Your task to perform on an android device: Open Youtube and go to "Your channel" Image 0: 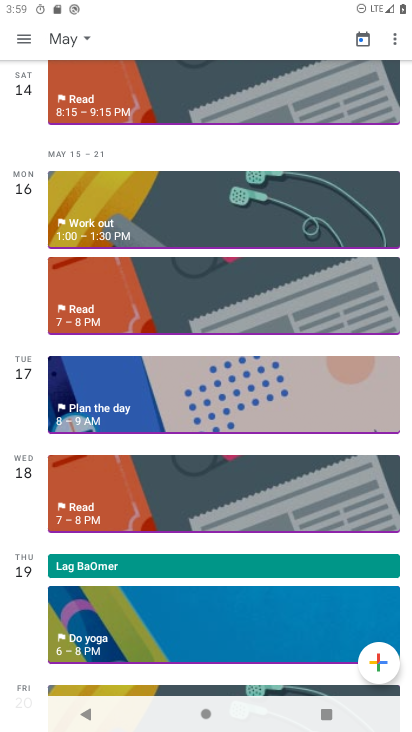
Step 0: press home button
Your task to perform on an android device: Open Youtube and go to "Your channel" Image 1: 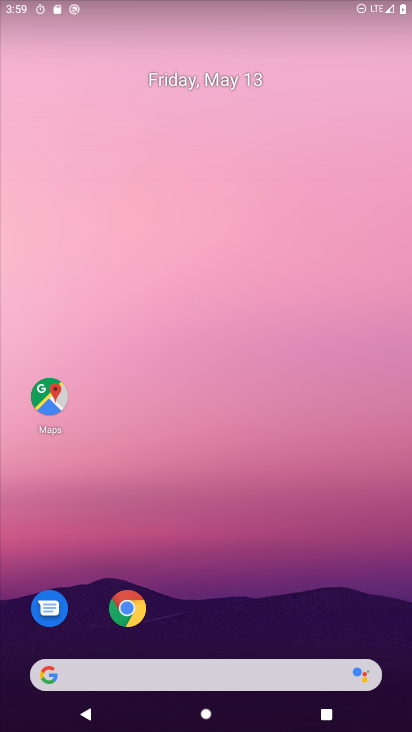
Step 1: drag from (261, 606) to (258, 74)
Your task to perform on an android device: Open Youtube and go to "Your channel" Image 2: 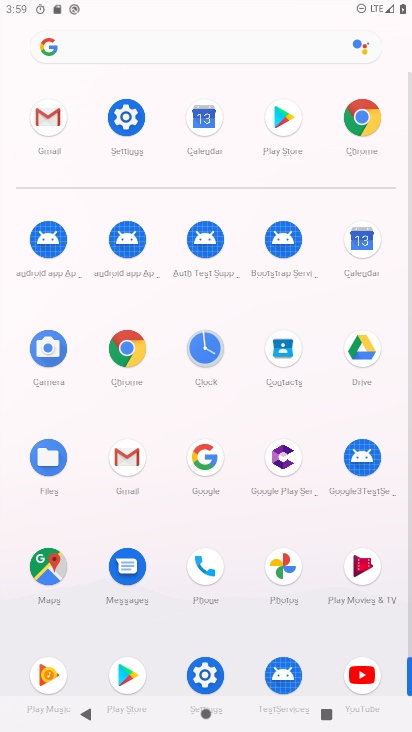
Step 2: click (371, 671)
Your task to perform on an android device: Open Youtube and go to "Your channel" Image 3: 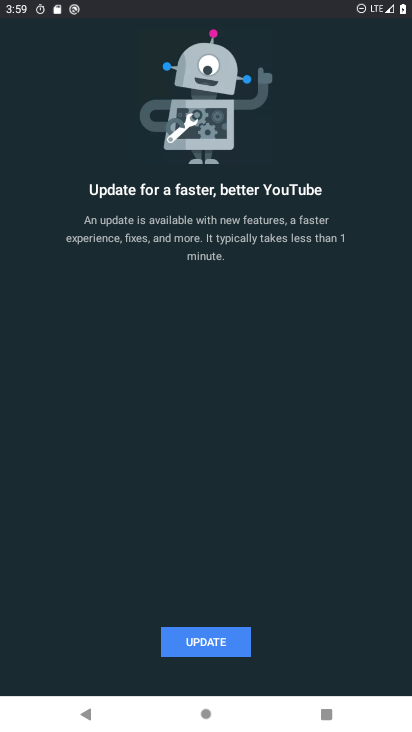
Step 3: click (189, 642)
Your task to perform on an android device: Open Youtube and go to "Your channel" Image 4: 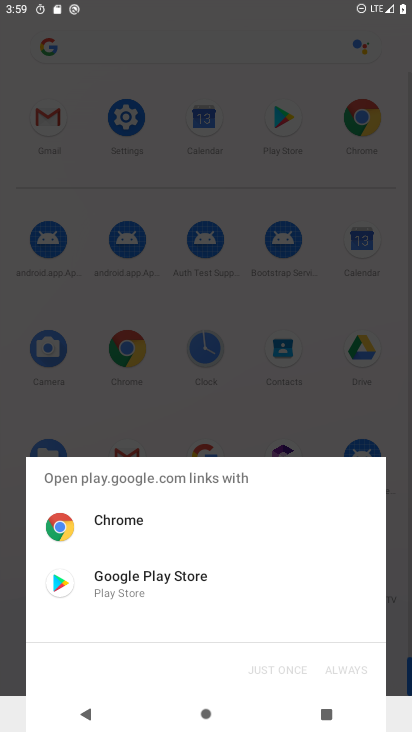
Step 4: click (155, 579)
Your task to perform on an android device: Open Youtube and go to "Your channel" Image 5: 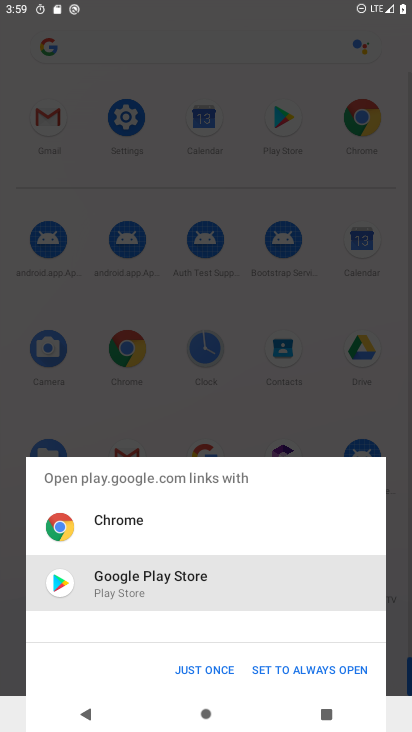
Step 5: click (180, 673)
Your task to perform on an android device: Open Youtube and go to "Your channel" Image 6: 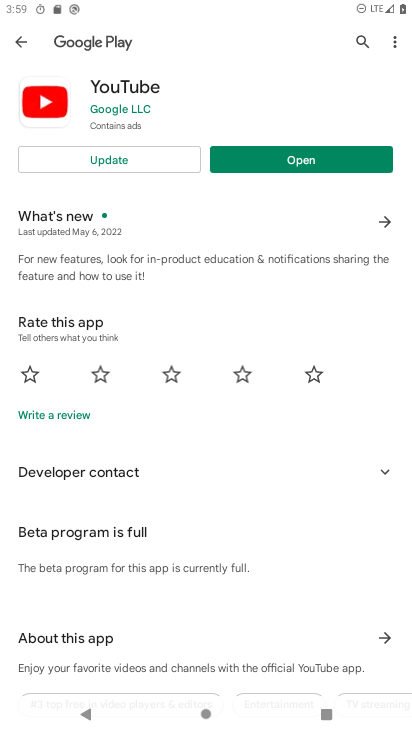
Step 6: click (124, 163)
Your task to perform on an android device: Open Youtube and go to "Your channel" Image 7: 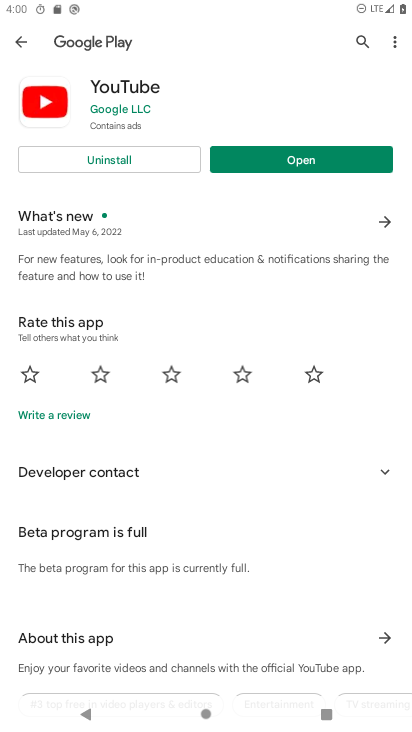
Step 7: click (279, 159)
Your task to perform on an android device: Open Youtube and go to "Your channel" Image 8: 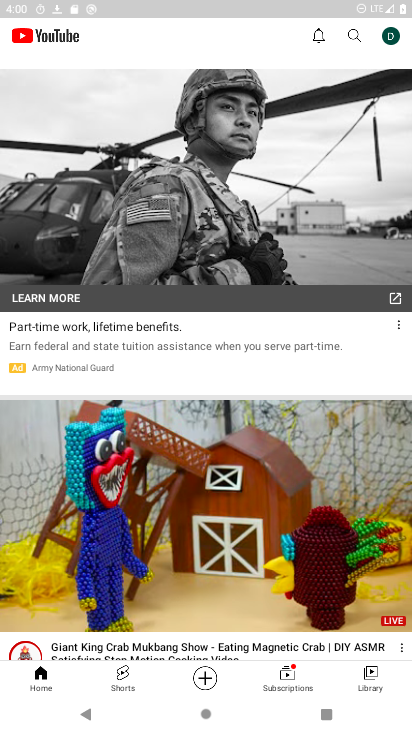
Step 8: click (387, 30)
Your task to perform on an android device: Open Youtube and go to "Your channel" Image 9: 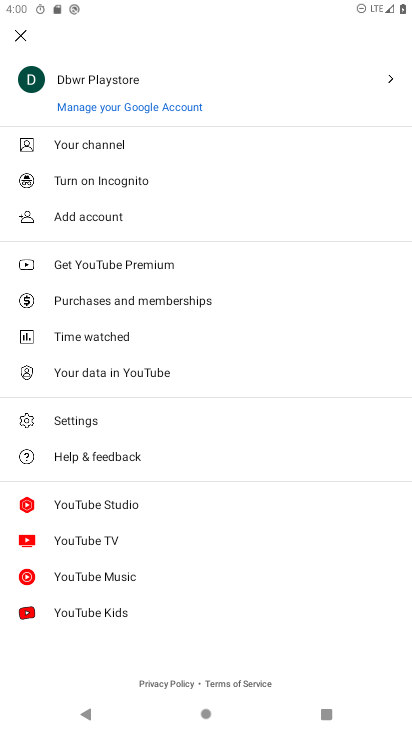
Step 9: click (118, 145)
Your task to perform on an android device: Open Youtube and go to "Your channel" Image 10: 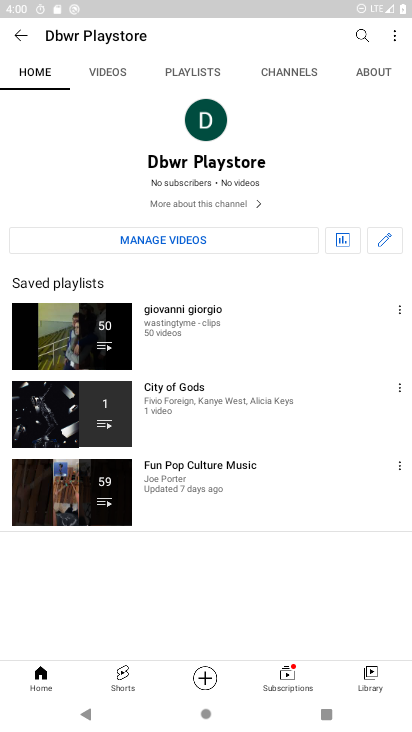
Step 10: task complete